Your task to perform on an android device: Go to privacy settings Image 0: 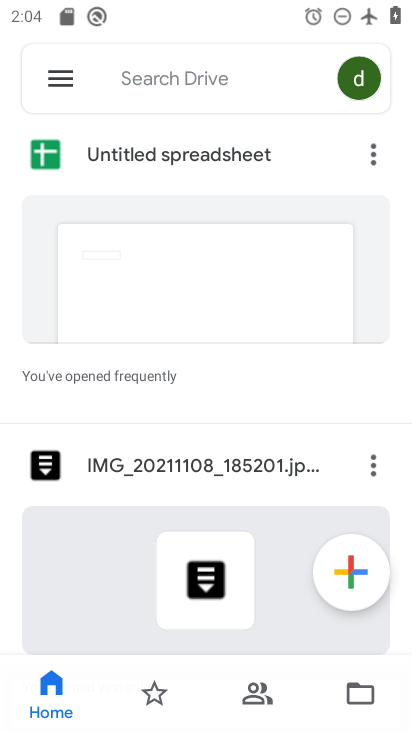
Step 0: press home button
Your task to perform on an android device: Go to privacy settings Image 1: 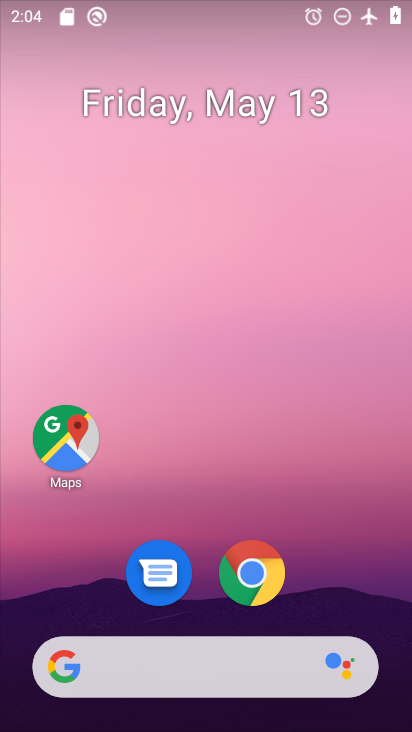
Step 1: drag from (242, 727) to (245, 218)
Your task to perform on an android device: Go to privacy settings Image 2: 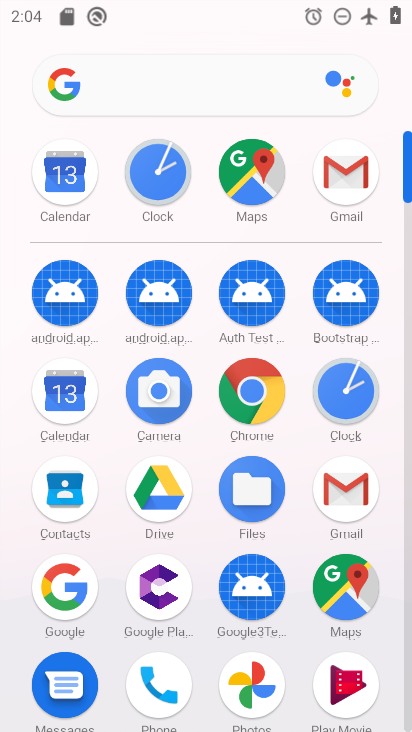
Step 2: drag from (201, 490) to (204, 136)
Your task to perform on an android device: Go to privacy settings Image 3: 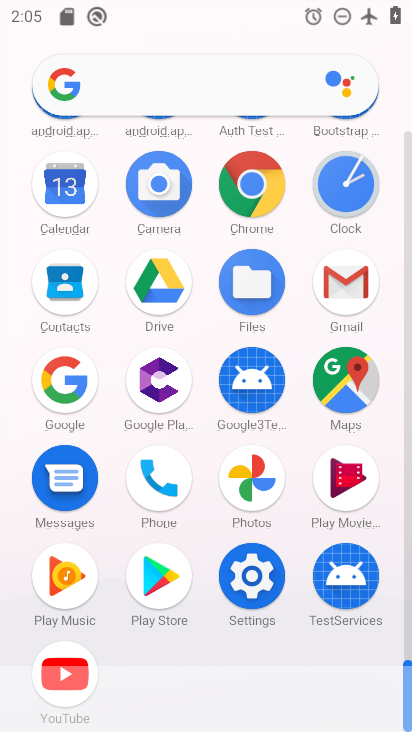
Step 3: click (263, 580)
Your task to perform on an android device: Go to privacy settings Image 4: 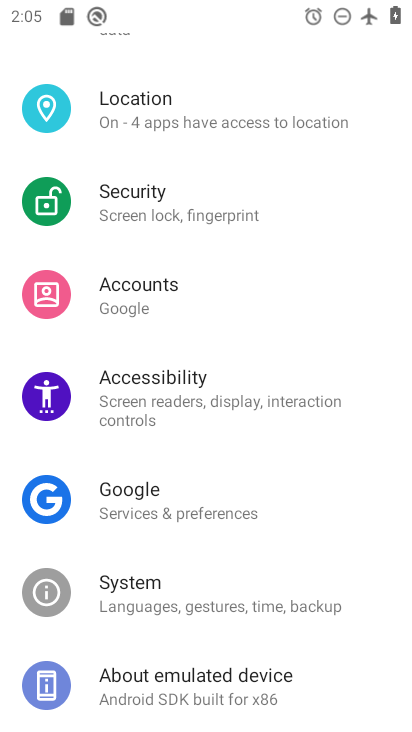
Step 4: drag from (254, 285) to (236, 603)
Your task to perform on an android device: Go to privacy settings Image 5: 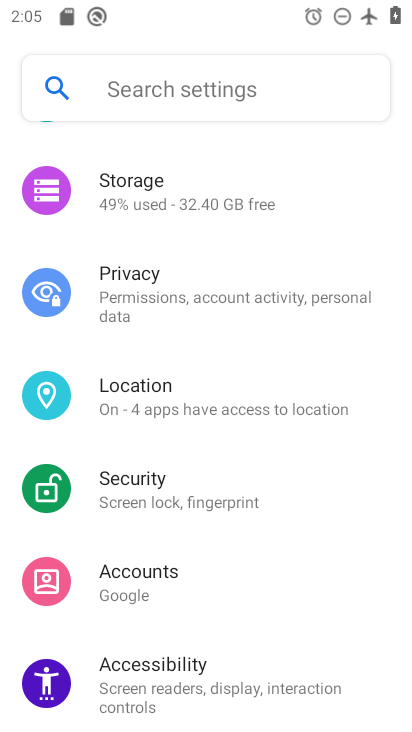
Step 5: click (273, 303)
Your task to perform on an android device: Go to privacy settings Image 6: 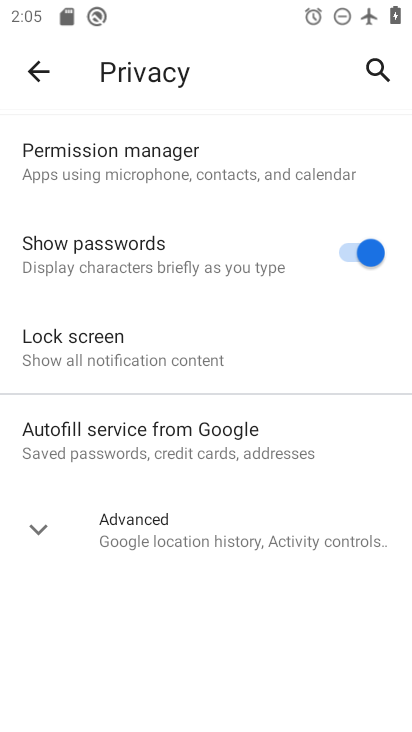
Step 6: task complete